Your task to perform on an android device: search for starred emails in the gmail app Image 0: 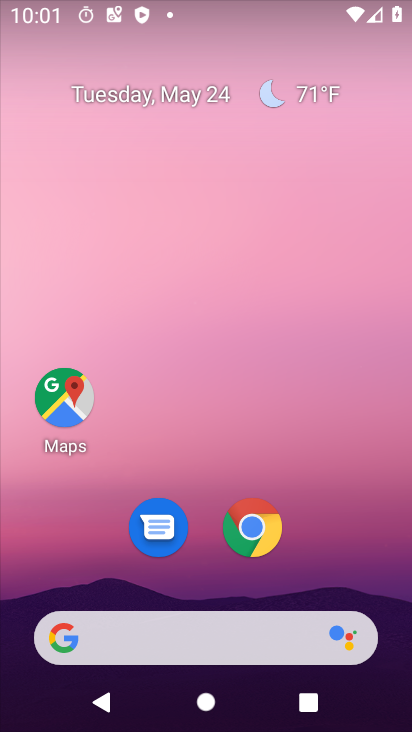
Step 0: drag from (206, 576) to (233, 125)
Your task to perform on an android device: search for starred emails in the gmail app Image 1: 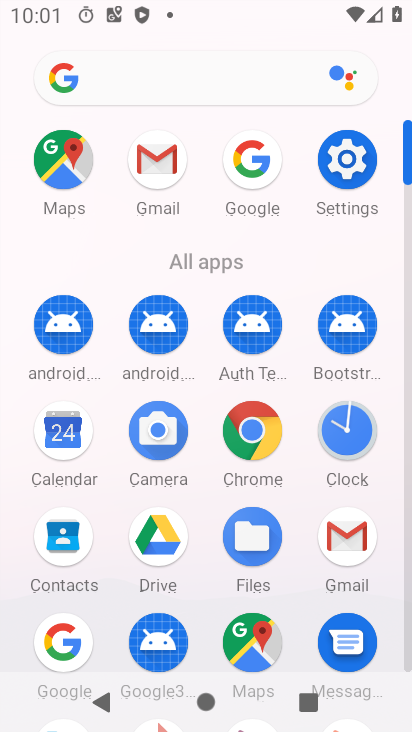
Step 1: click (150, 161)
Your task to perform on an android device: search for starred emails in the gmail app Image 2: 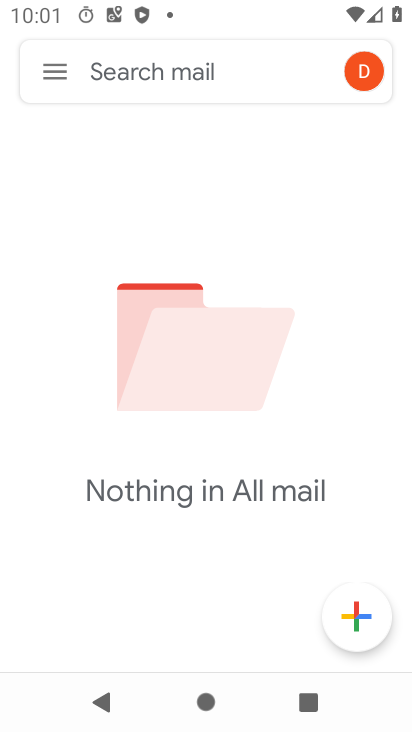
Step 2: click (55, 80)
Your task to perform on an android device: search for starred emails in the gmail app Image 3: 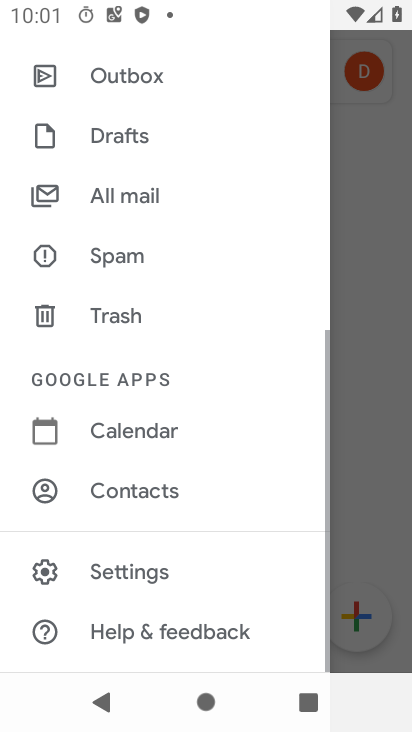
Step 3: drag from (172, 216) to (141, 583)
Your task to perform on an android device: search for starred emails in the gmail app Image 4: 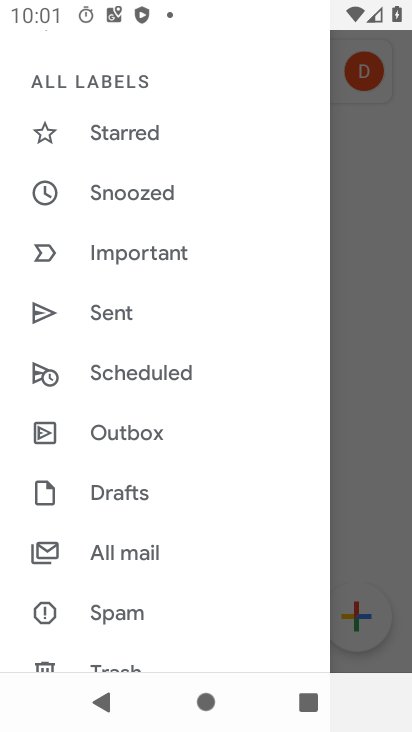
Step 4: click (121, 132)
Your task to perform on an android device: search for starred emails in the gmail app Image 5: 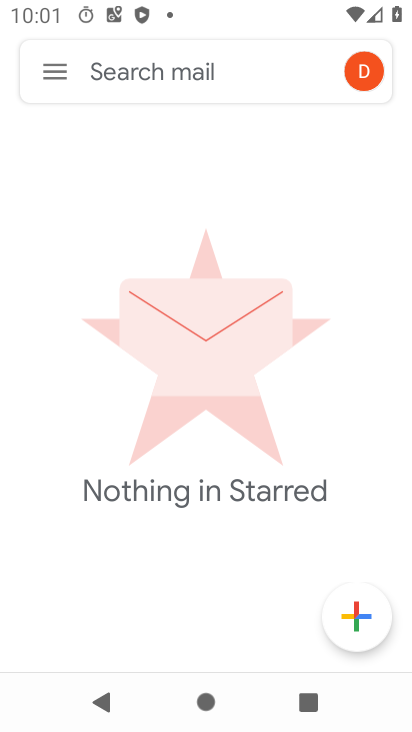
Step 5: task complete